Your task to perform on an android device: change notification settings in the gmail app Image 0: 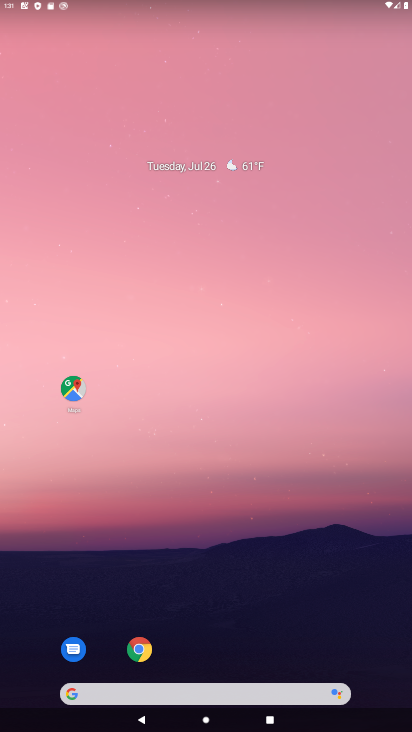
Step 0: press home button
Your task to perform on an android device: change notification settings in the gmail app Image 1: 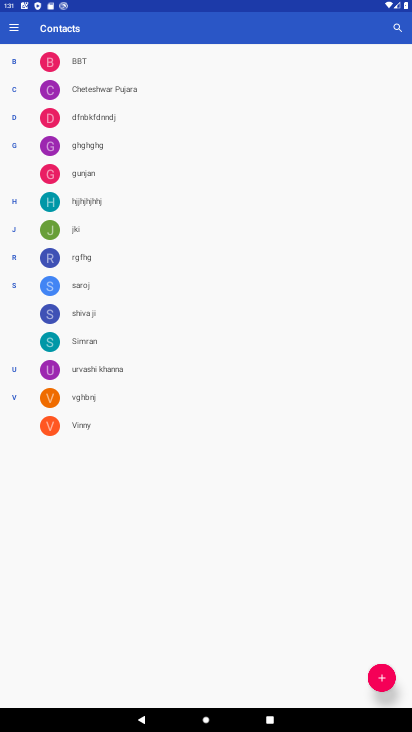
Step 1: click (237, 7)
Your task to perform on an android device: change notification settings in the gmail app Image 2: 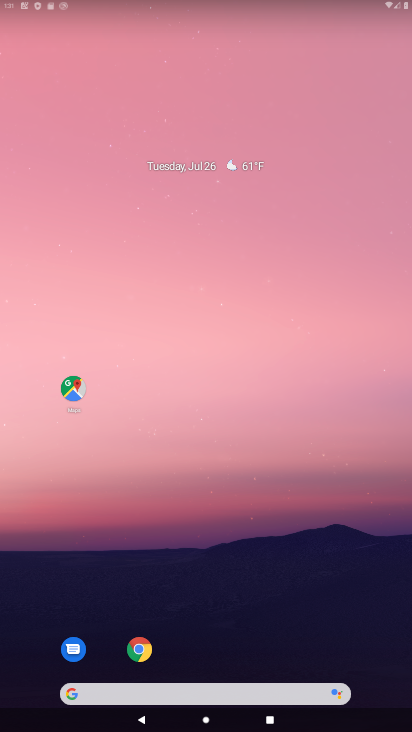
Step 2: drag from (206, 656) to (220, 21)
Your task to perform on an android device: change notification settings in the gmail app Image 3: 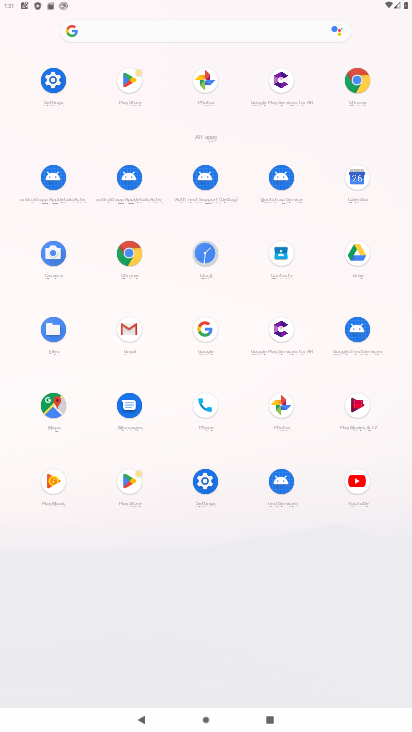
Step 3: click (130, 331)
Your task to perform on an android device: change notification settings in the gmail app Image 4: 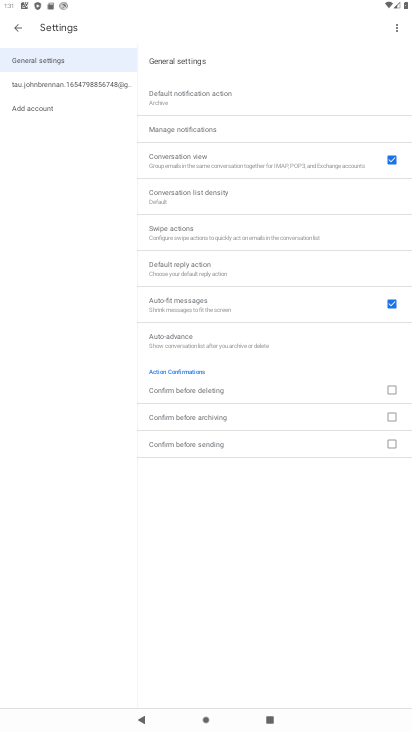
Step 4: click (165, 90)
Your task to perform on an android device: change notification settings in the gmail app Image 5: 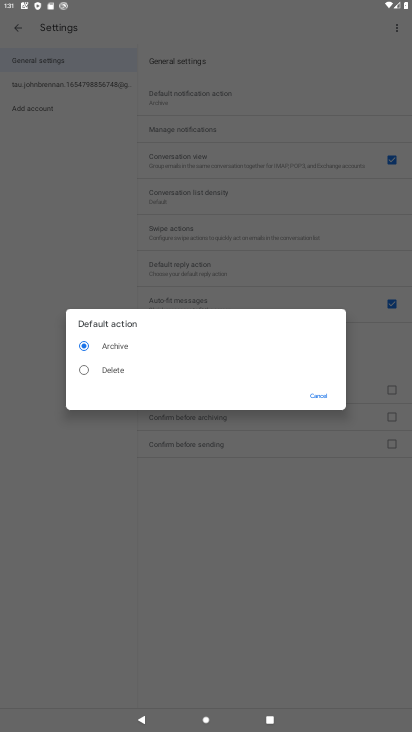
Step 5: click (316, 402)
Your task to perform on an android device: change notification settings in the gmail app Image 6: 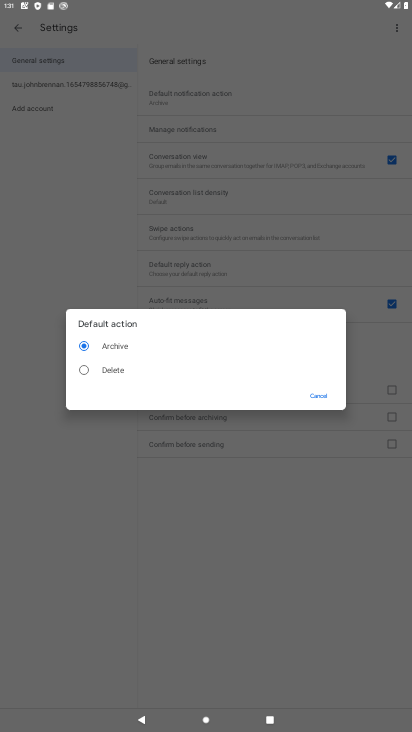
Step 6: click (185, 130)
Your task to perform on an android device: change notification settings in the gmail app Image 7: 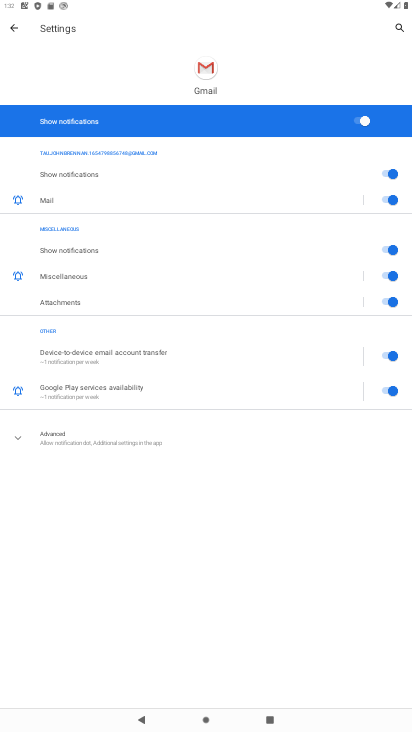
Step 7: click (361, 117)
Your task to perform on an android device: change notification settings in the gmail app Image 8: 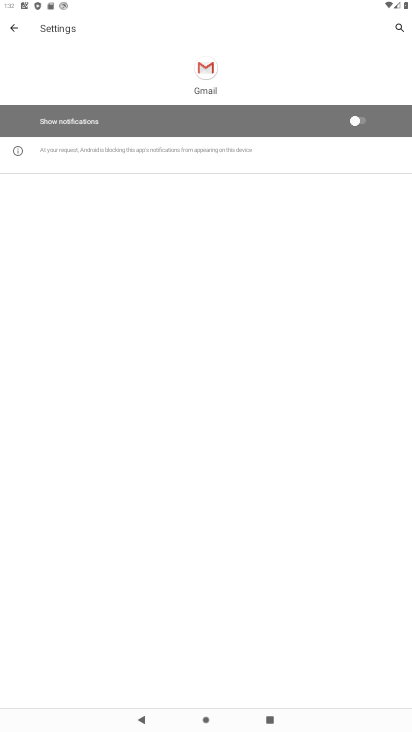
Step 8: task complete